Your task to perform on an android device: Show me productivity apps on the Play Store Image 0: 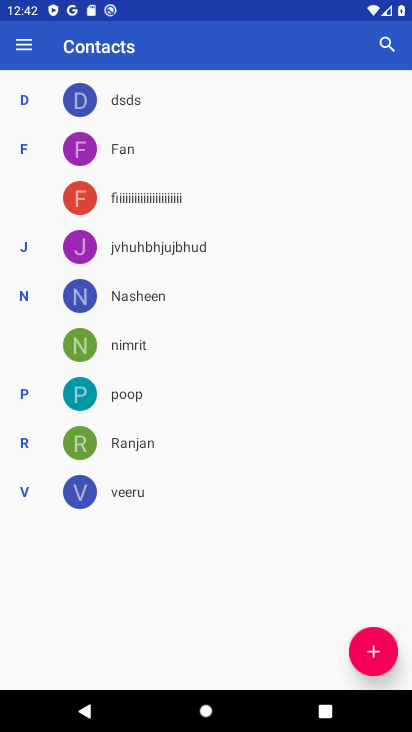
Step 0: press home button
Your task to perform on an android device: Show me productivity apps on the Play Store Image 1: 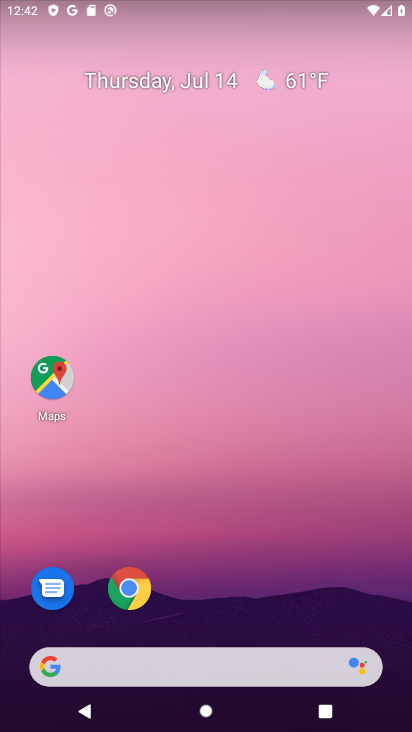
Step 1: drag from (217, 436) to (201, 5)
Your task to perform on an android device: Show me productivity apps on the Play Store Image 2: 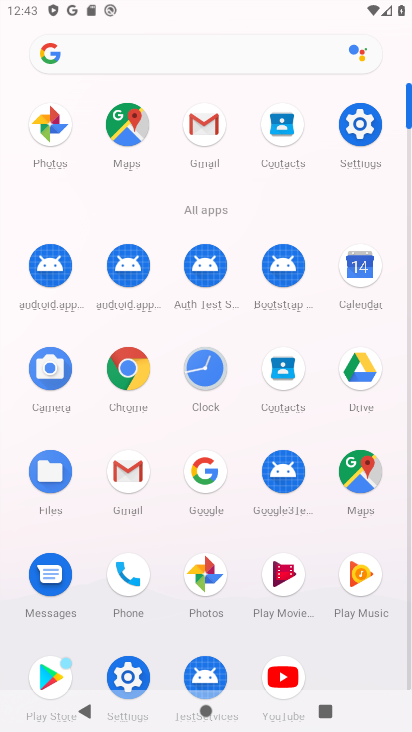
Step 2: click (44, 675)
Your task to perform on an android device: Show me productivity apps on the Play Store Image 3: 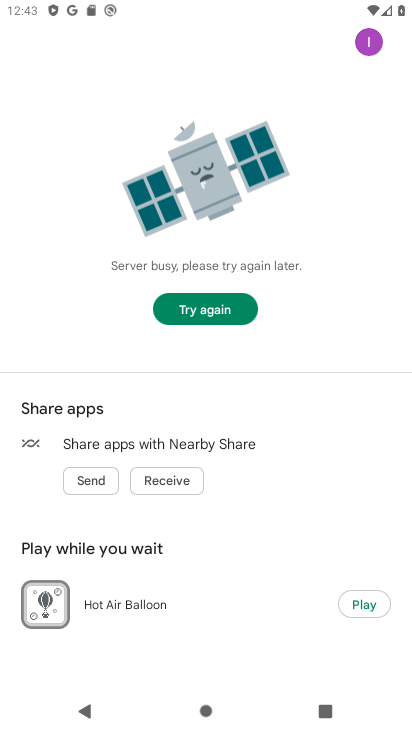
Step 3: click (223, 321)
Your task to perform on an android device: Show me productivity apps on the Play Store Image 4: 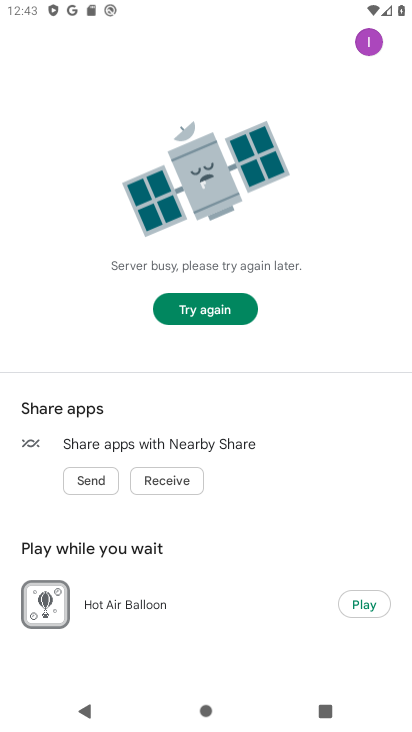
Step 4: click (224, 314)
Your task to perform on an android device: Show me productivity apps on the Play Store Image 5: 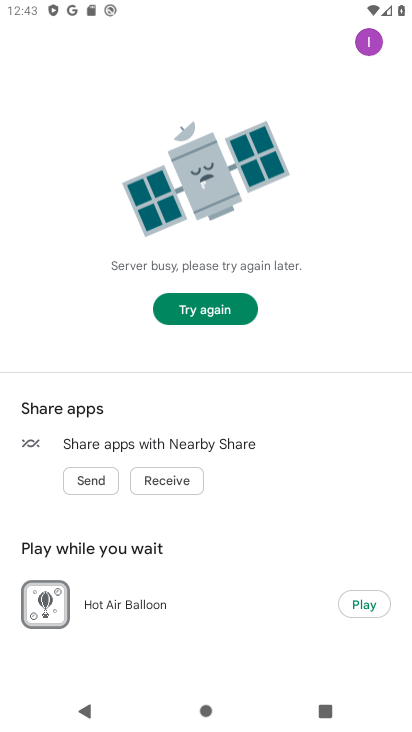
Step 5: click (224, 314)
Your task to perform on an android device: Show me productivity apps on the Play Store Image 6: 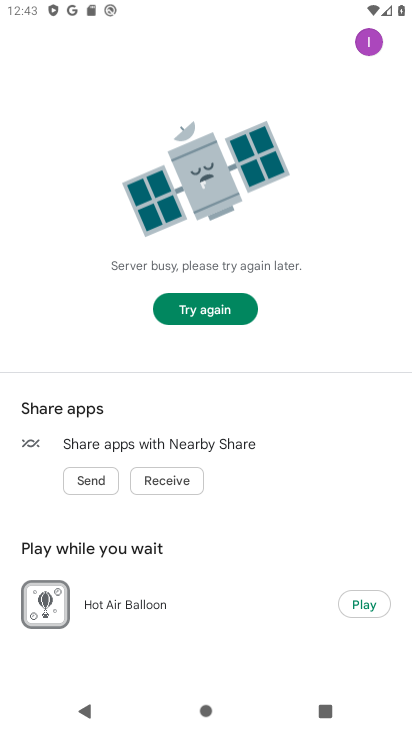
Step 6: click (224, 314)
Your task to perform on an android device: Show me productivity apps on the Play Store Image 7: 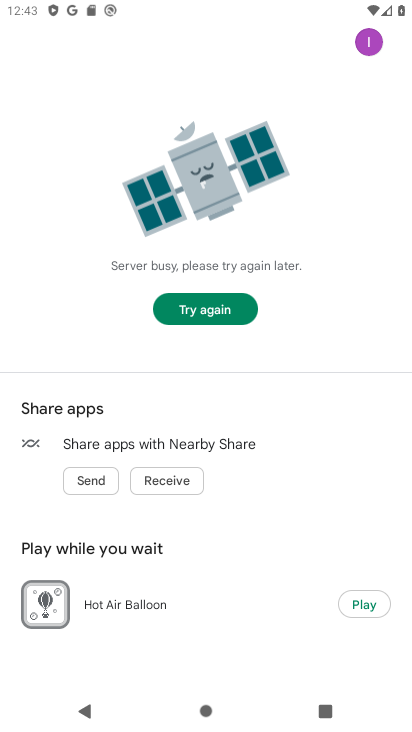
Step 7: task complete